Your task to perform on an android device: check data usage Image 0: 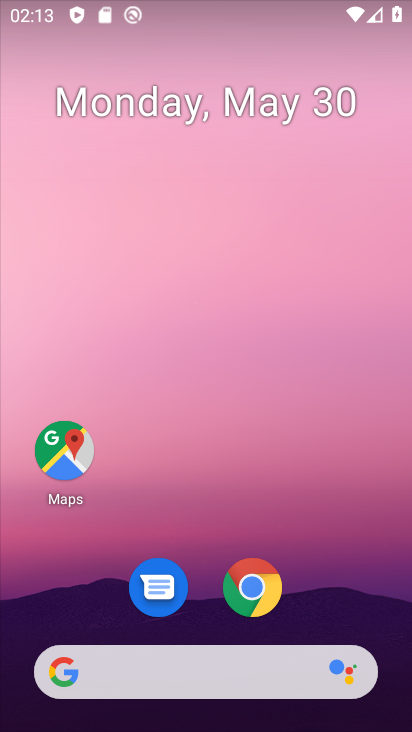
Step 0: drag from (129, 725) to (148, 3)
Your task to perform on an android device: check data usage Image 1: 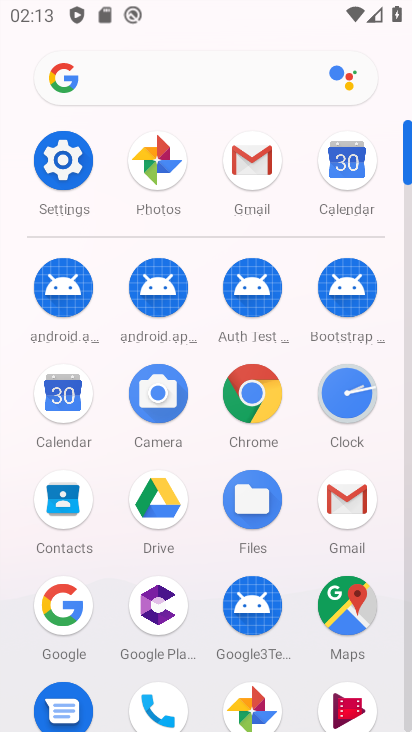
Step 1: click (75, 172)
Your task to perform on an android device: check data usage Image 2: 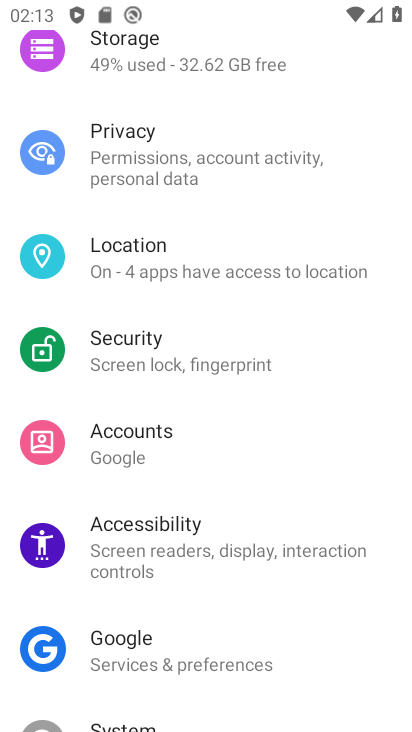
Step 2: drag from (168, 96) to (179, 633)
Your task to perform on an android device: check data usage Image 3: 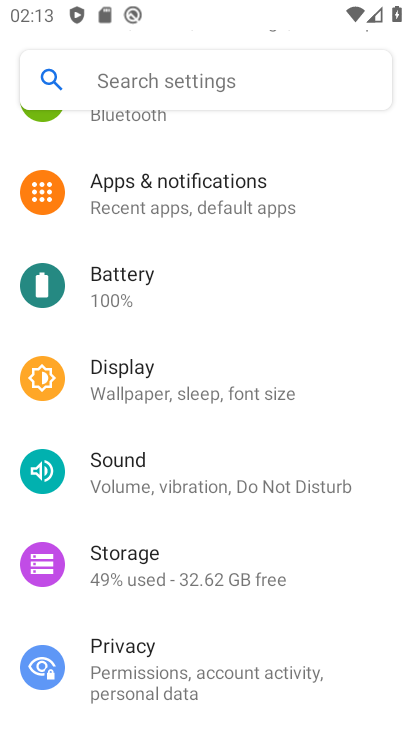
Step 3: drag from (223, 152) to (213, 567)
Your task to perform on an android device: check data usage Image 4: 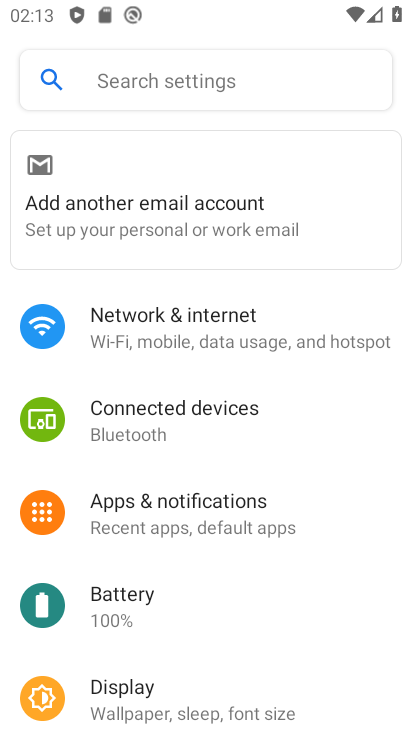
Step 4: click (229, 346)
Your task to perform on an android device: check data usage Image 5: 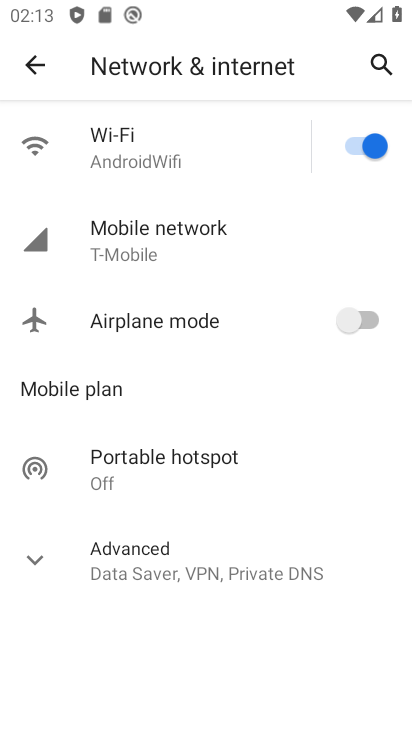
Step 5: click (187, 258)
Your task to perform on an android device: check data usage Image 6: 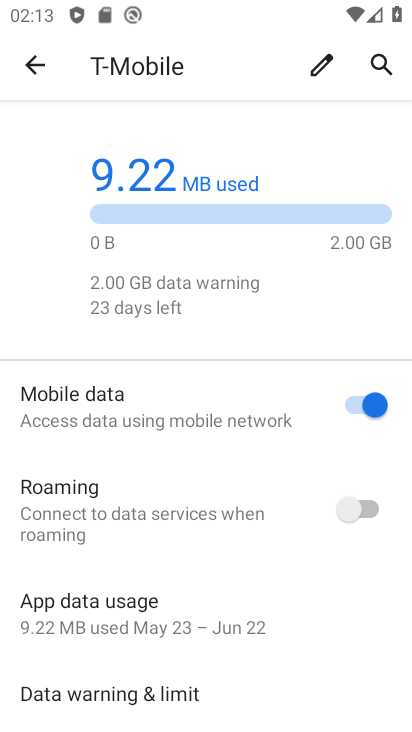
Step 6: click (298, 294)
Your task to perform on an android device: check data usage Image 7: 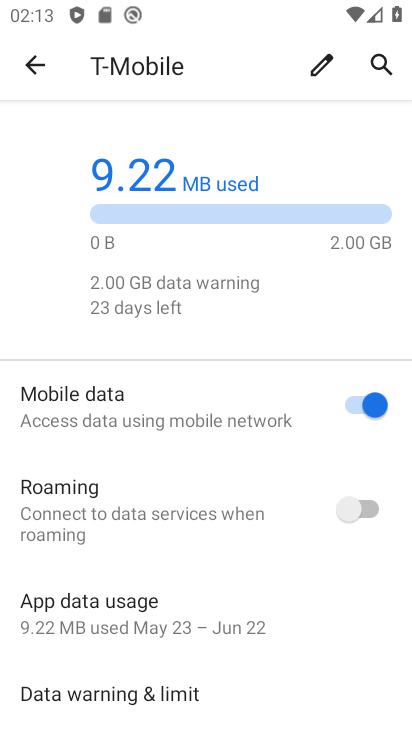
Step 7: task complete